Your task to perform on an android device: Open the stopwatch Image 0: 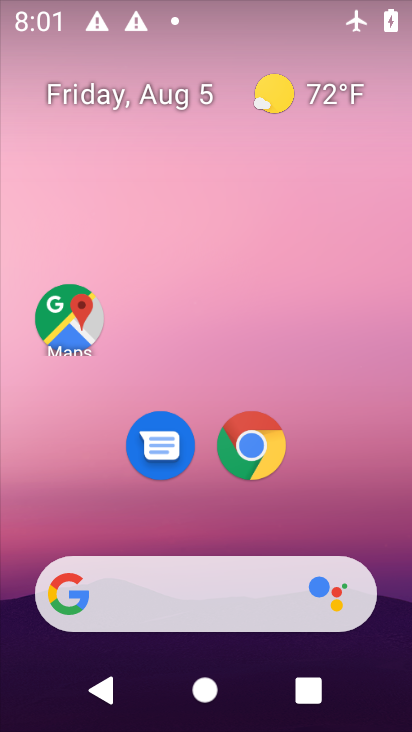
Step 0: drag from (211, 447) to (205, 103)
Your task to perform on an android device: Open the stopwatch Image 1: 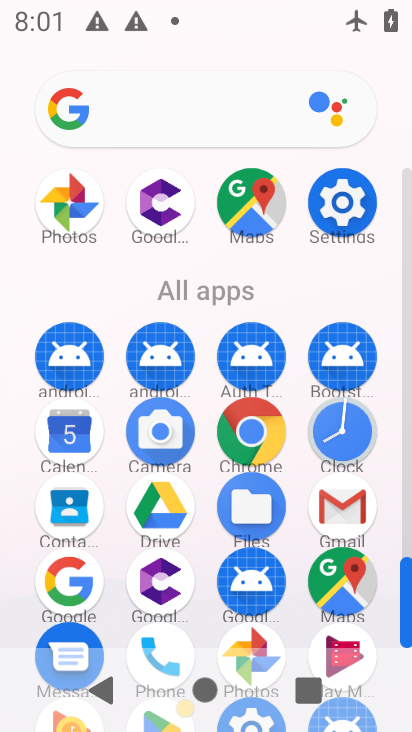
Step 1: click (335, 439)
Your task to perform on an android device: Open the stopwatch Image 2: 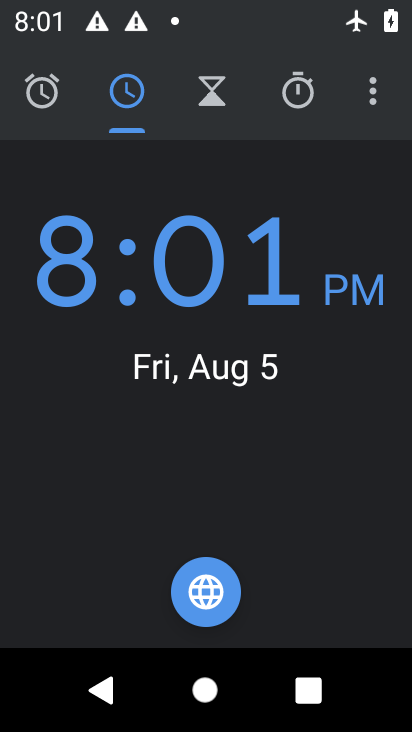
Step 2: click (282, 95)
Your task to perform on an android device: Open the stopwatch Image 3: 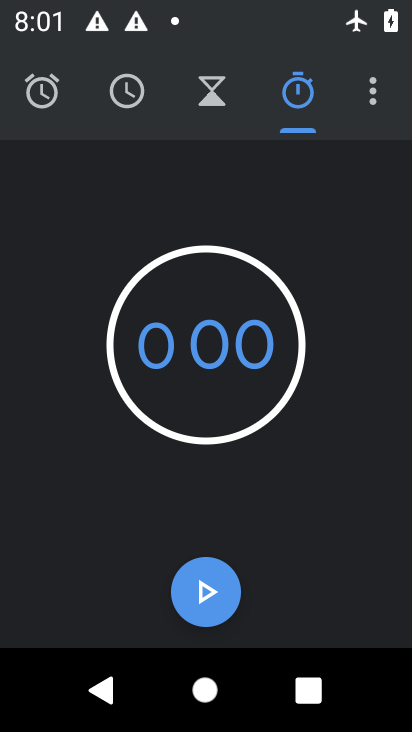
Step 3: task complete